Your task to perform on an android device: Open display settings Image 0: 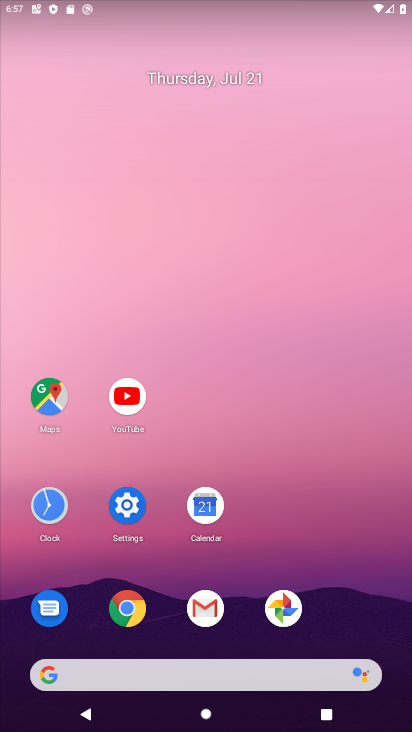
Step 0: click (126, 504)
Your task to perform on an android device: Open display settings Image 1: 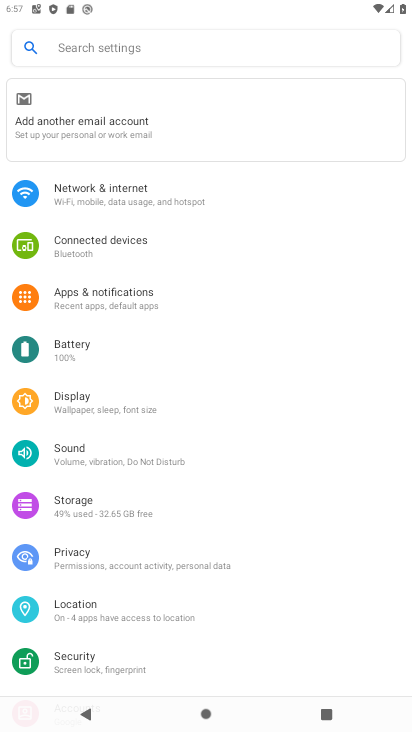
Step 1: click (65, 397)
Your task to perform on an android device: Open display settings Image 2: 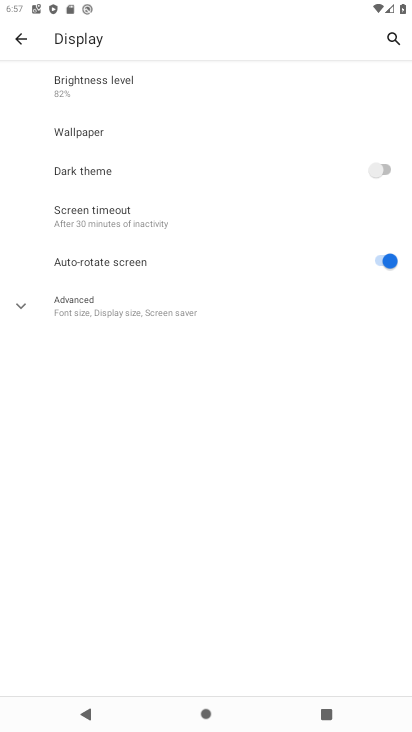
Step 2: task complete